Your task to perform on an android device: show emergency info Image 0: 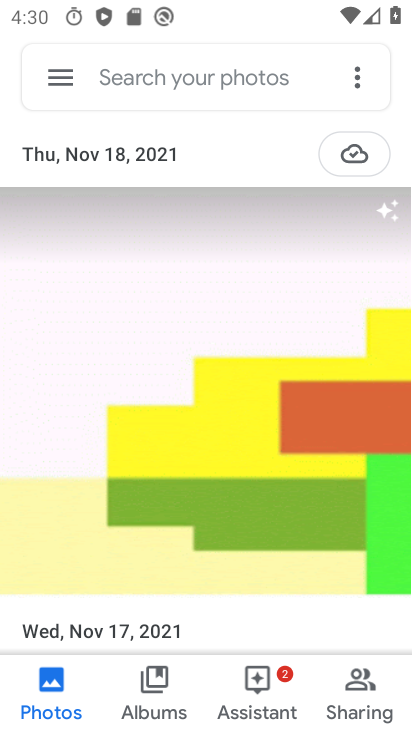
Step 0: press back button
Your task to perform on an android device: show emergency info Image 1: 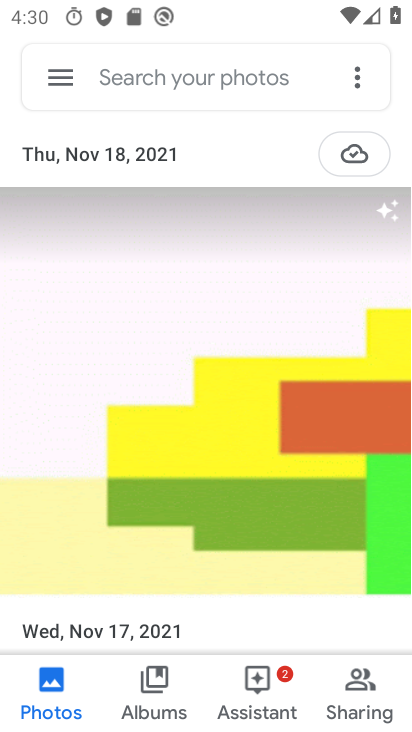
Step 1: press back button
Your task to perform on an android device: show emergency info Image 2: 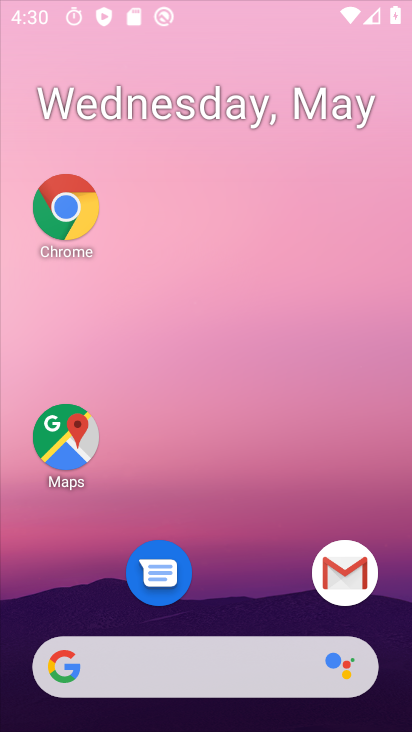
Step 2: press back button
Your task to perform on an android device: show emergency info Image 3: 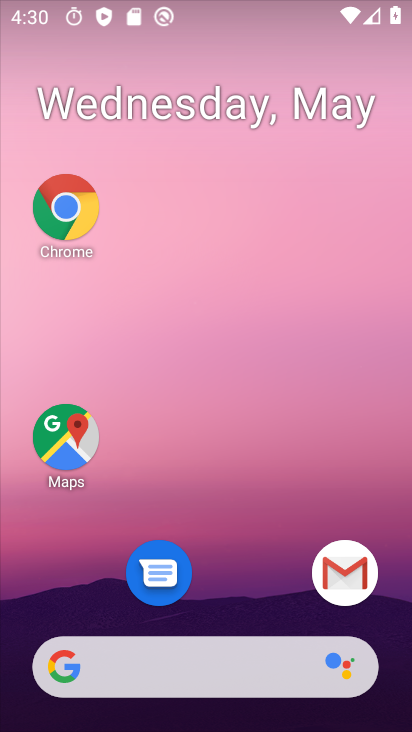
Step 3: press home button
Your task to perform on an android device: show emergency info Image 4: 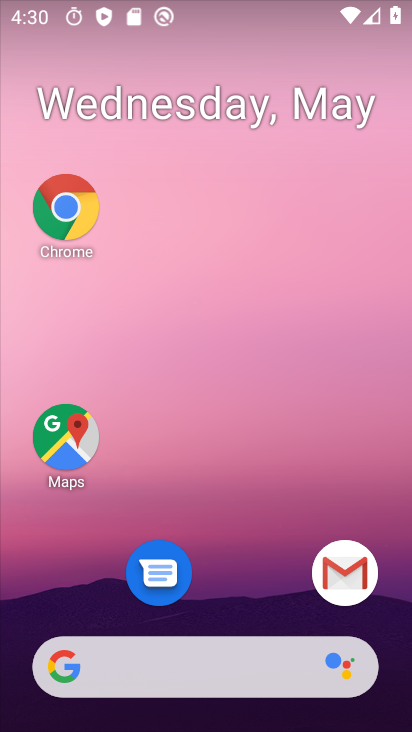
Step 4: drag from (256, 693) to (199, 4)
Your task to perform on an android device: show emergency info Image 5: 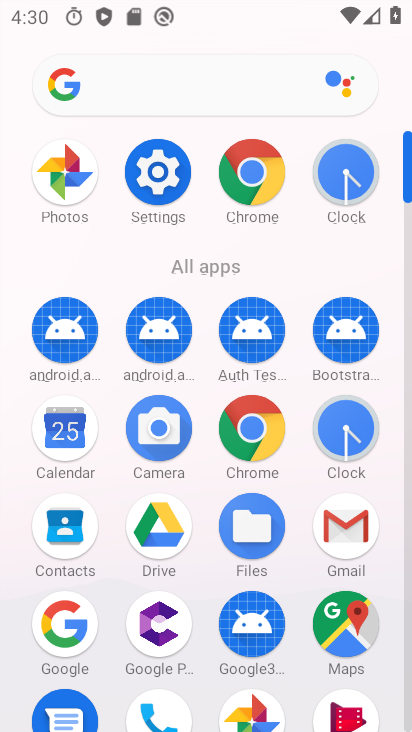
Step 5: click (152, 157)
Your task to perform on an android device: show emergency info Image 6: 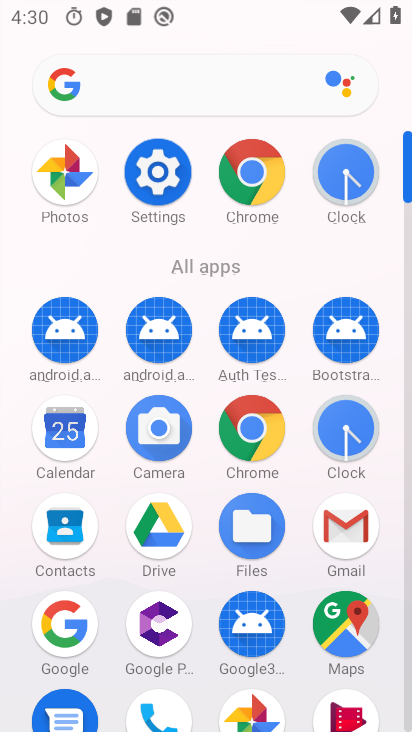
Step 6: click (152, 157)
Your task to perform on an android device: show emergency info Image 7: 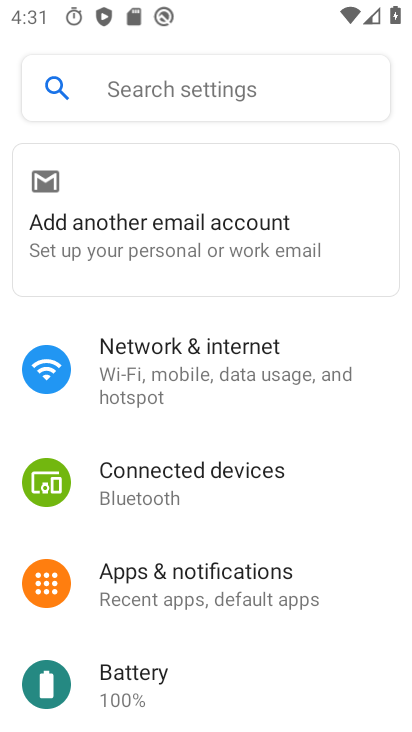
Step 7: drag from (170, 631) to (89, 143)
Your task to perform on an android device: show emergency info Image 8: 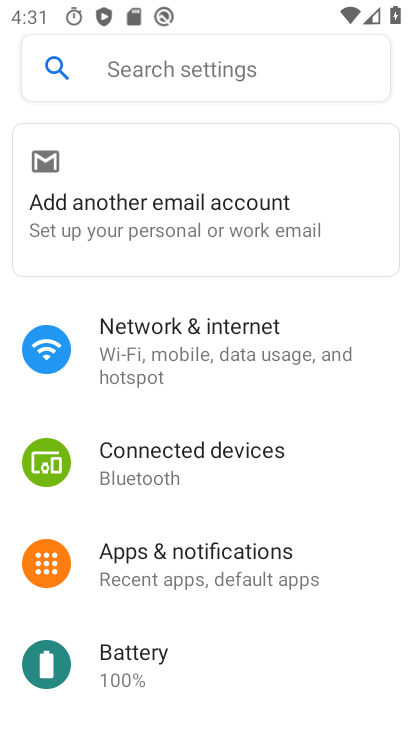
Step 8: drag from (173, 549) to (139, 201)
Your task to perform on an android device: show emergency info Image 9: 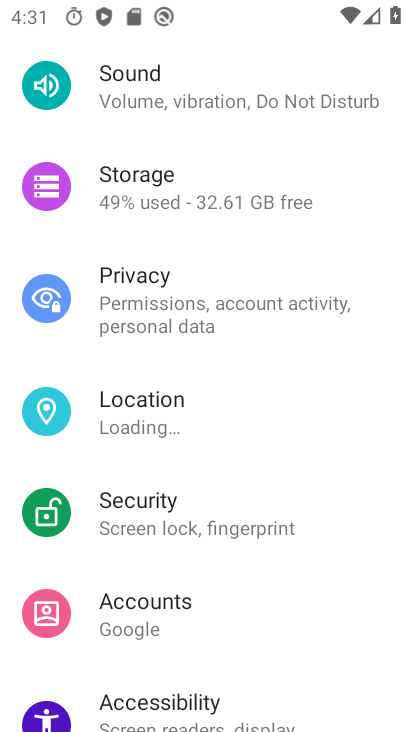
Step 9: drag from (158, 487) to (203, 172)
Your task to perform on an android device: show emergency info Image 10: 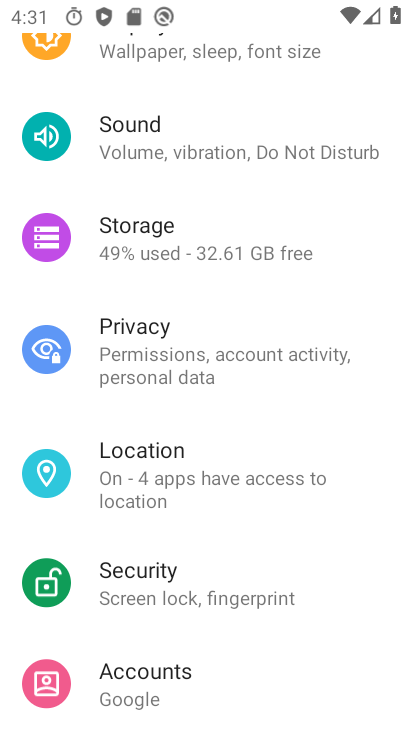
Step 10: drag from (192, 570) to (164, 226)
Your task to perform on an android device: show emergency info Image 11: 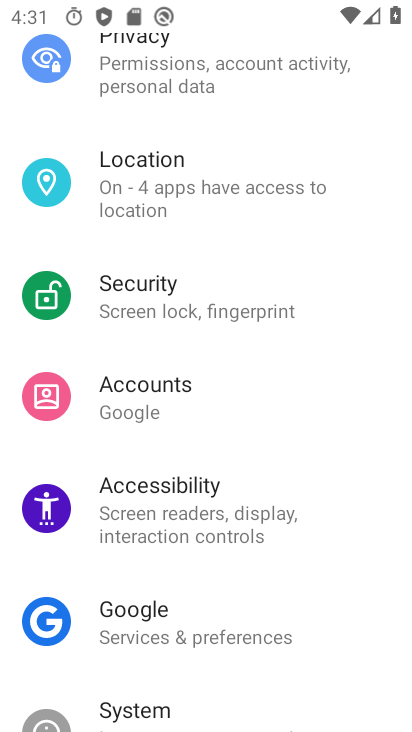
Step 11: drag from (169, 590) to (167, 212)
Your task to perform on an android device: show emergency info Image 12: 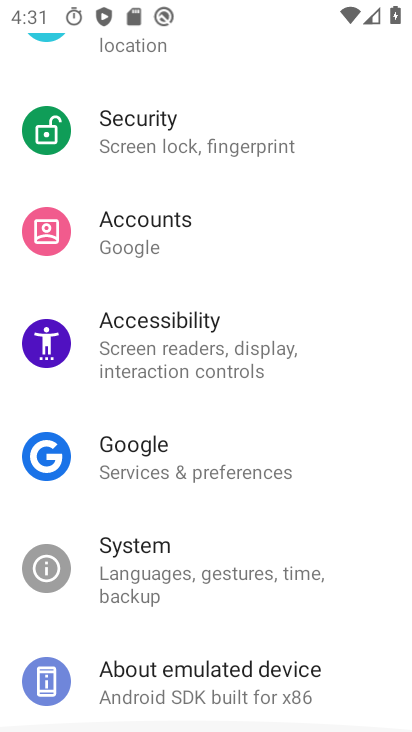
Step 12: drag from (161, 583) to (154, 41)
Your task to perform on an android device: show emergency info Image 13: 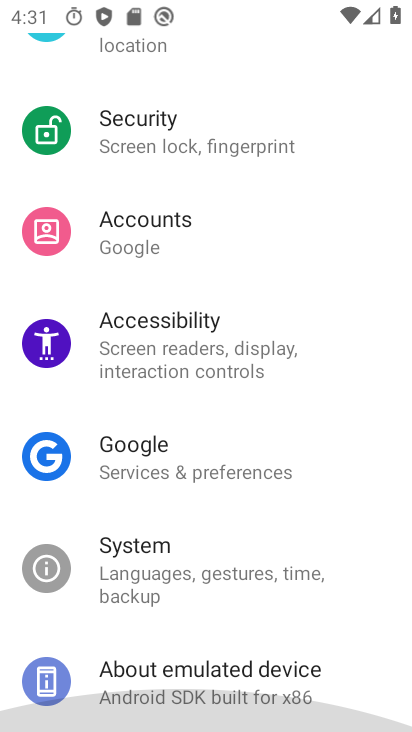
Step 13: drag from (174, 499) to (174, 70)
Your task to perform on an android device: show emergency info Image 14: 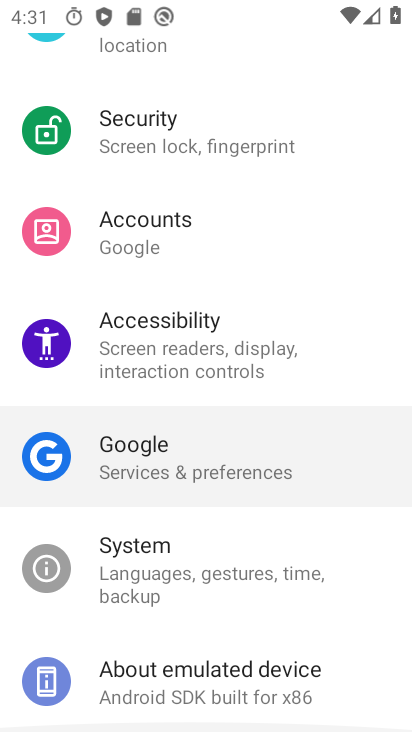
Step 14: drag from (276, 549) to (265, 109)
Your task to perform on an android device: show emergency info Image 15: 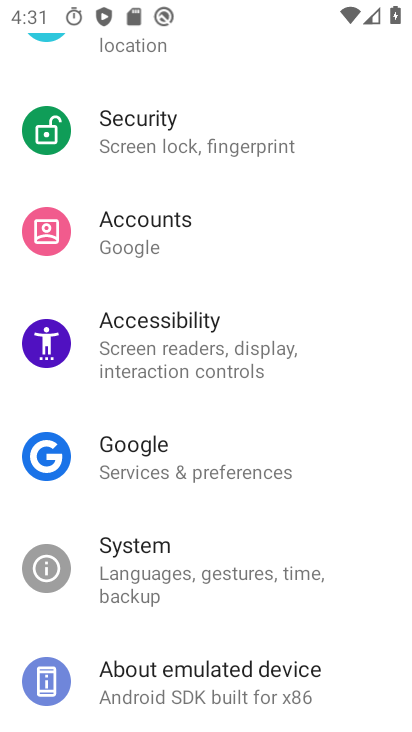
Step 15: click (133, 692)
Your task to perform on an android device: show emergency info Image 16: 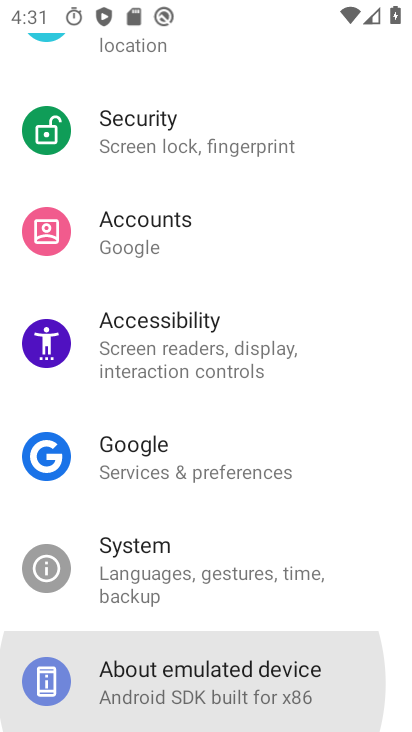
Step 16: click (132, 691)
Your task to perform on an android device: show emergency info Image 17: 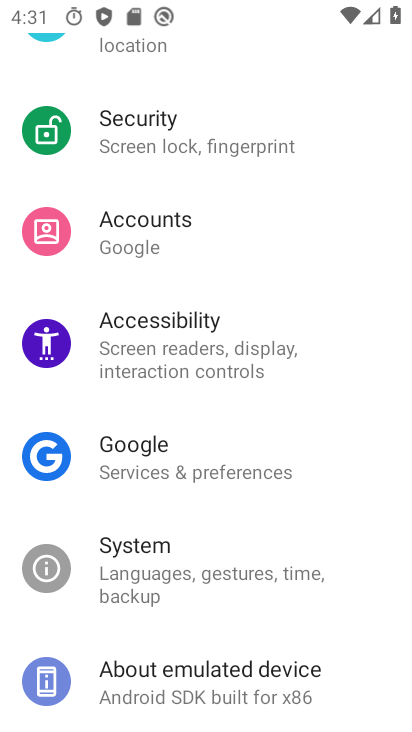
Step 17: click (132, 691)
Your task to perform on an android device: show emergency info Image 18: 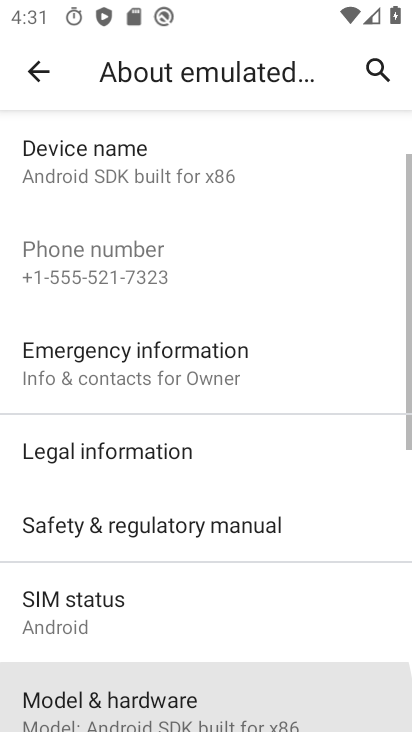
Step 18: click (134, 687)
Your task to perform on an android device: show emergency info Image 19: 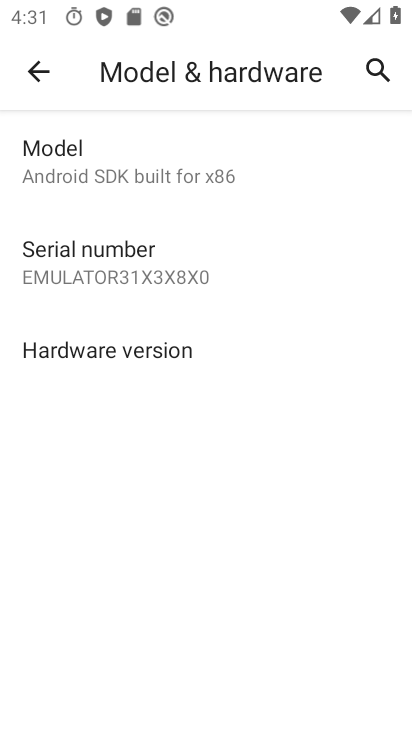
Step 19: drag from (133, 524) to (177, 211)
Your task to perform on an android device: show emergency info Image 20: 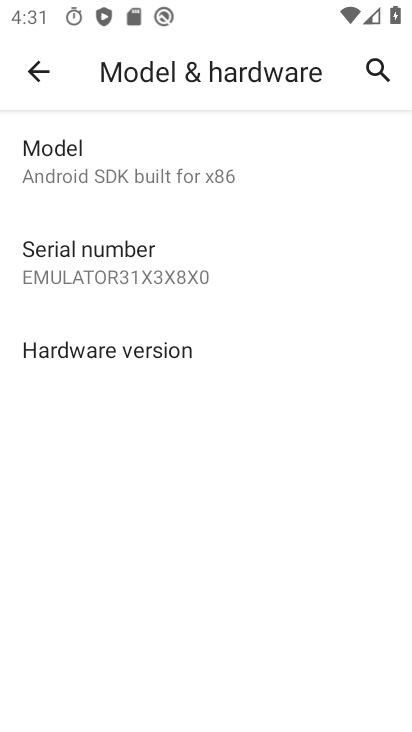
Step 20: click (44, 66)
Your task to perform on an android device: show emergency info Image 21: 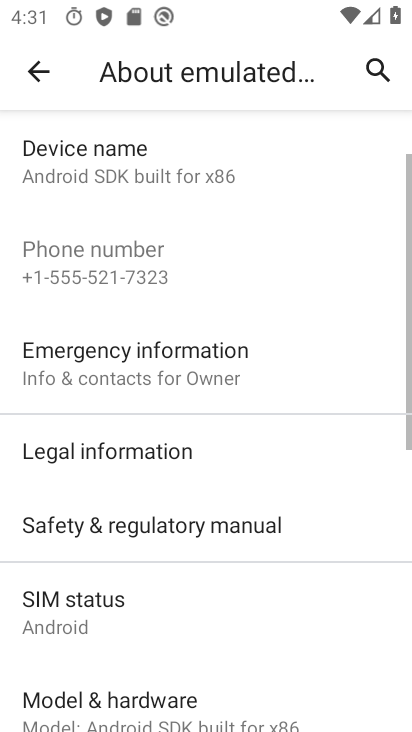
Step 21: task complete